Your task to perform on an android device: move an email to a new category in the gmail app Image 0: 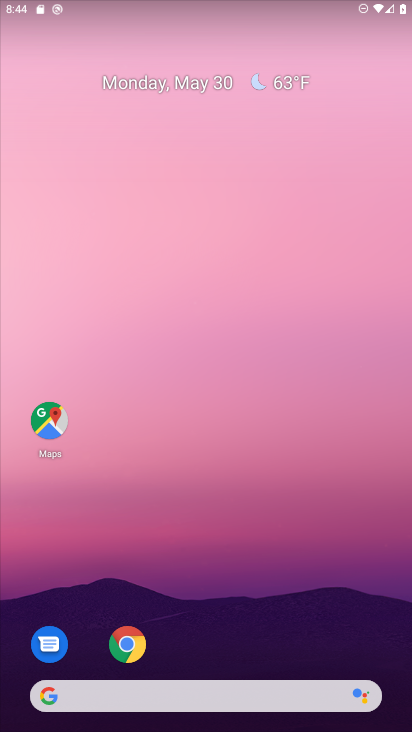
Step 0: drag from (200, 646) to (280, 72)
Your task to perform on an android device: move an email to a new category in the gmail app Image 1: 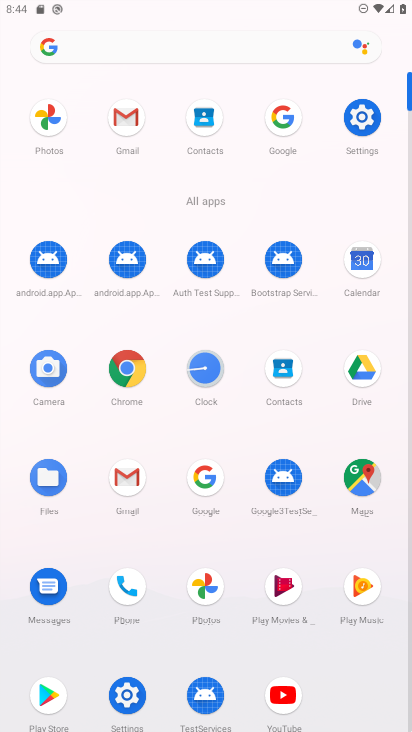
Step 1: click (132, 120)
Your task to perform on an android device: move an email to a new category in the gmail app Image 2: 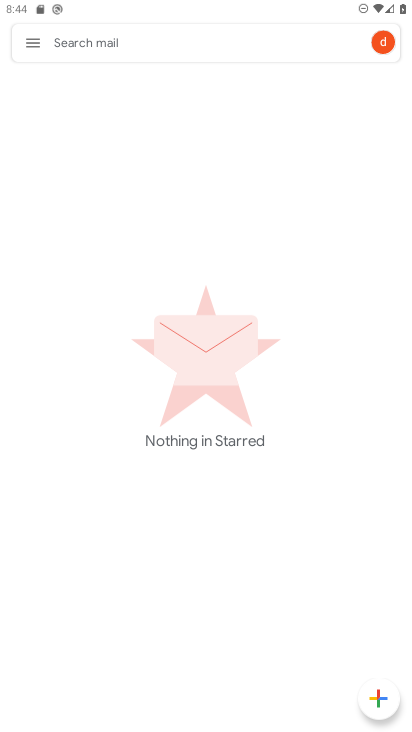
Step 2: click (30, 38)
Your task to perform on an android device: move an email to a new category in the gmail app Image 3: 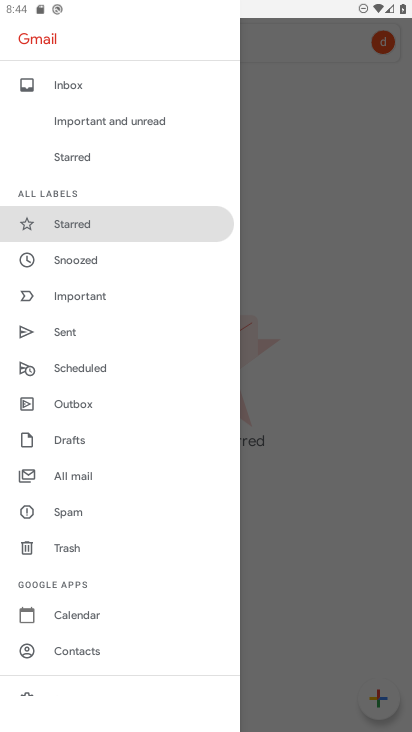
Step 3: click (78, 480)
Your task to perform on an android device: move an email to a new category in the gmail app Image 4: 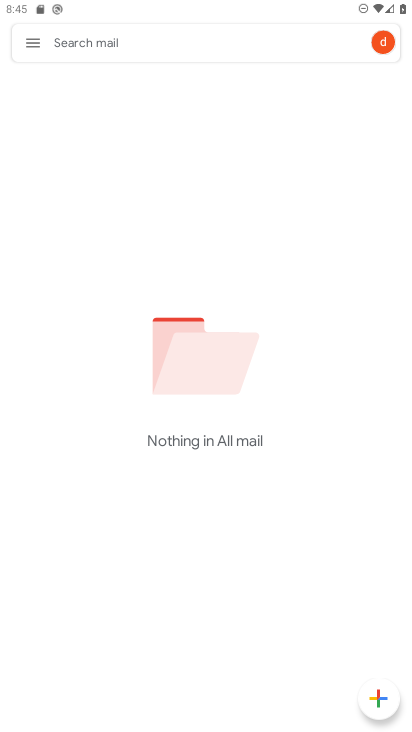
Step 4: task complete